Your task to perform on an android device: toggle data saver in the chrome app Image 0: 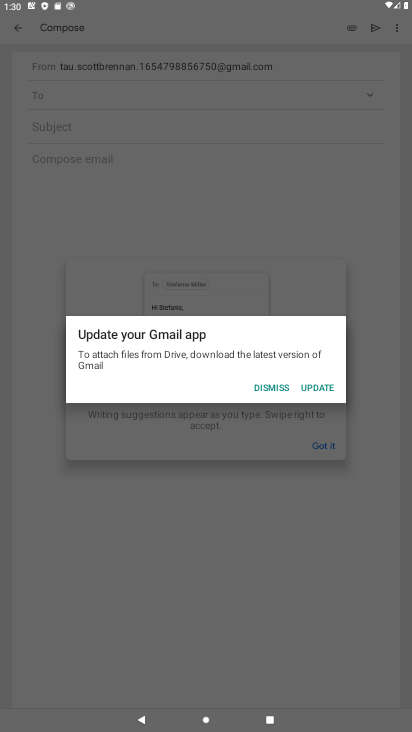
Step 0: press home button
Your task to perform on an android device: toggle data saver in the chrome app Image 1: 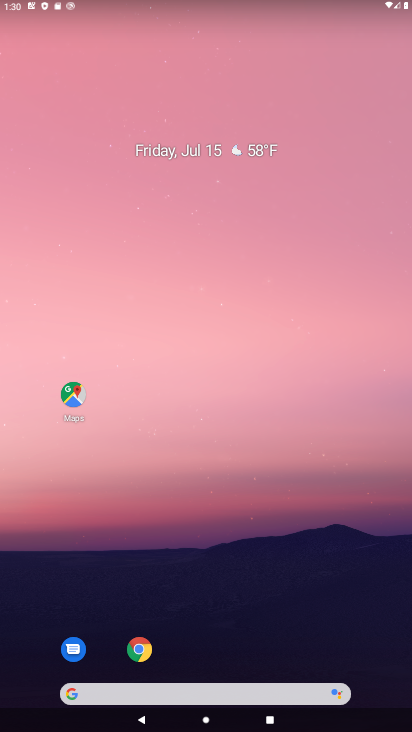
Step 1: drag from (202, 652) to (264, 61)
Your task to perform on an android device: toggle data saver in the chrome app Image 2: 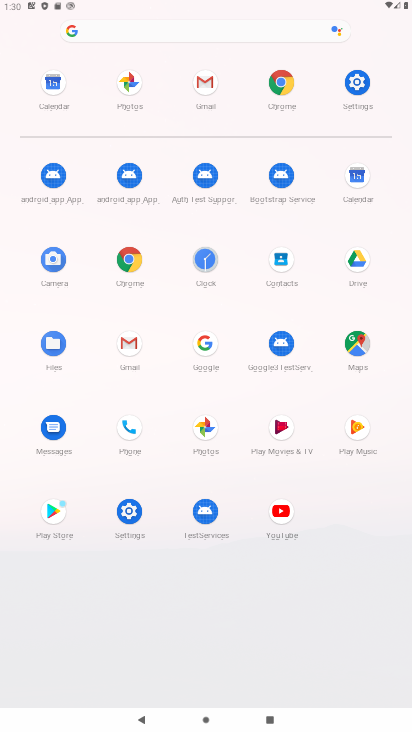
Step 2: click (131, 262)
Your task to perform on an android device: toggle data saver in the chrome app Image 3: 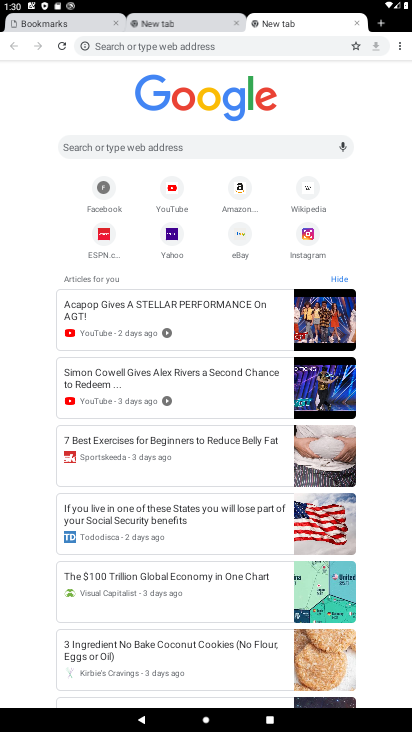
Step 3: drag from (406, 45) to (328, 213)
Your task to perform on an android device: toggle data saver in the chrome app Image 4: 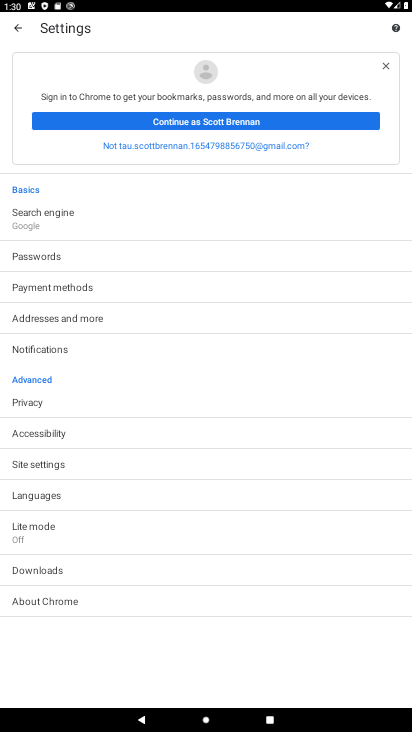
Step 4: click (63, 496)
Your task to perform on an android device: toggle data saver in the chrome app Image 5: 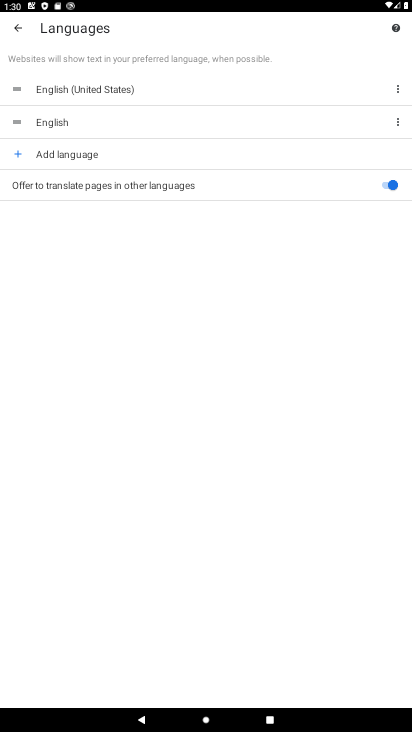
Step 5: click (393, 187)
Your task to perform on an android device: toggle data saver in the chrome app Image 6: 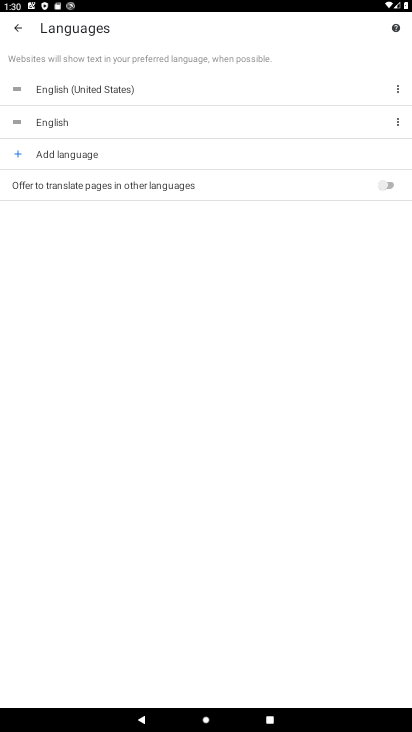
Step 6: click (391, 182)
Your task to perform on an android device: toggle data saver in the chrome app Image 7: 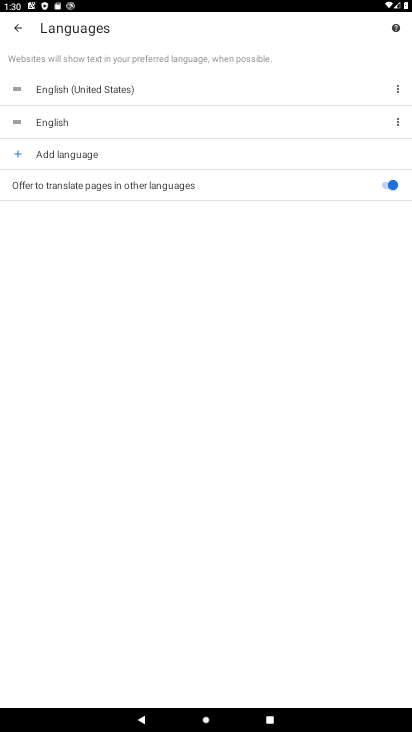
Step 7: press back button
Your task to perform on an android device: toggle data saver in the chrome app Image 8: 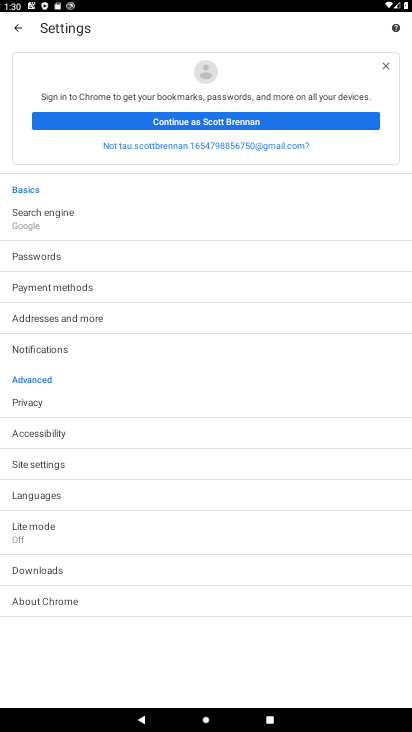
Step 8: click (68, 531)
Your task to perform on an android device: toggle data saver in the chrome app Image 9: 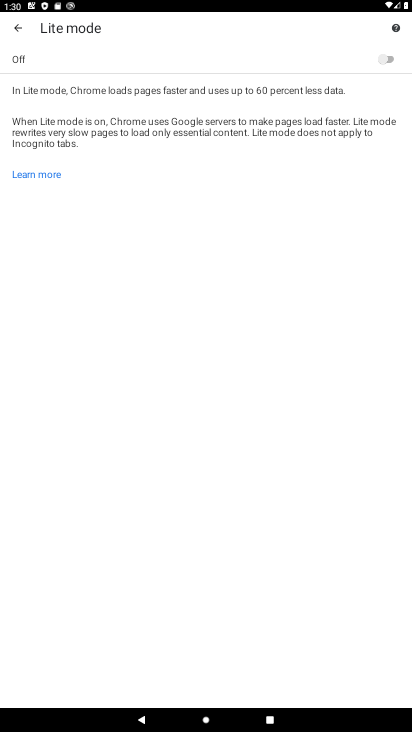
Step 9: click (392, 57)
Your task to perform on an android device: toggle data saver in the chrome app Image 10: 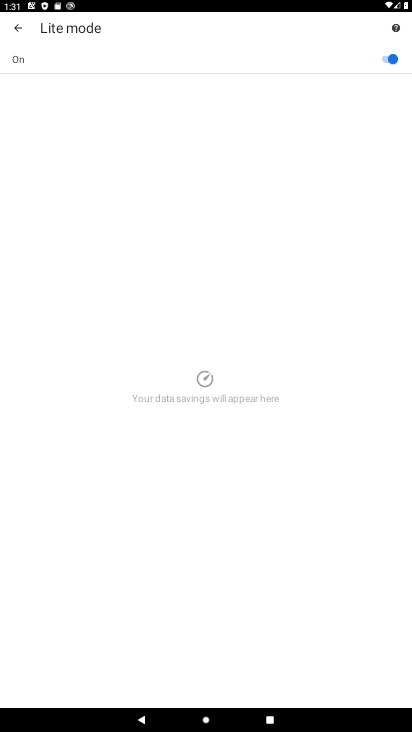
Step 10: task complete